Your task to perform on an android device: Open display settings Image 0: 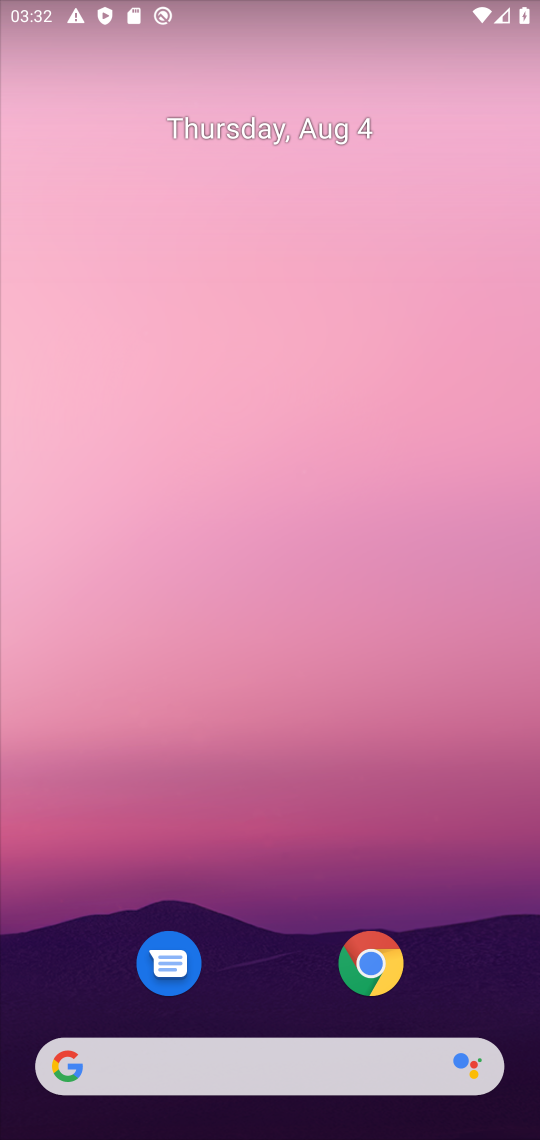
Step 0: drag from (277, 946) to (274, 45)
Your task to perform on an android device: Open display settings Image 1: 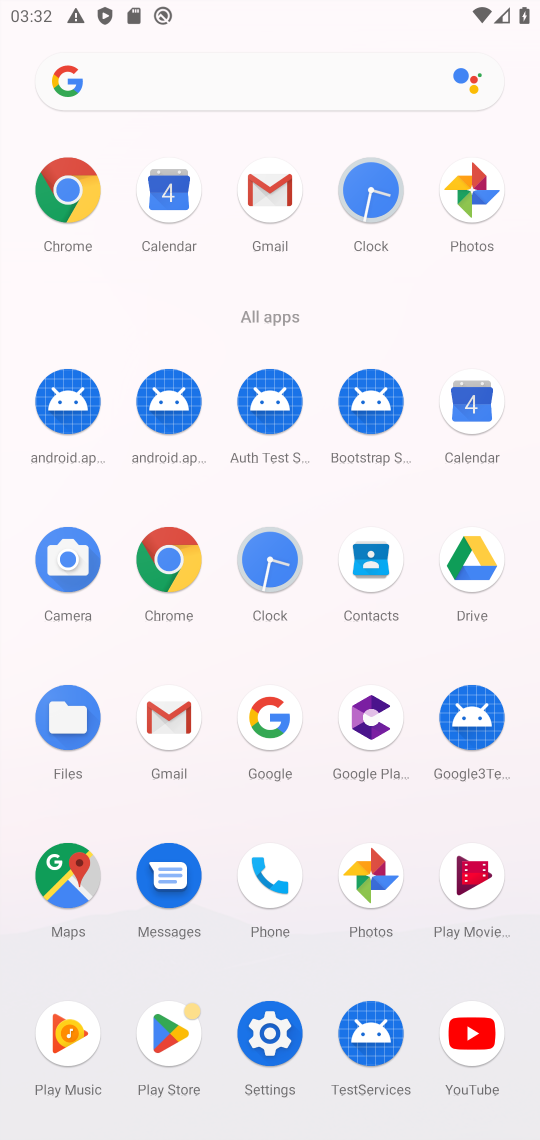
Step 1: click (274, 1037)
Your task to perform on an android device: Open display settings Image 2: 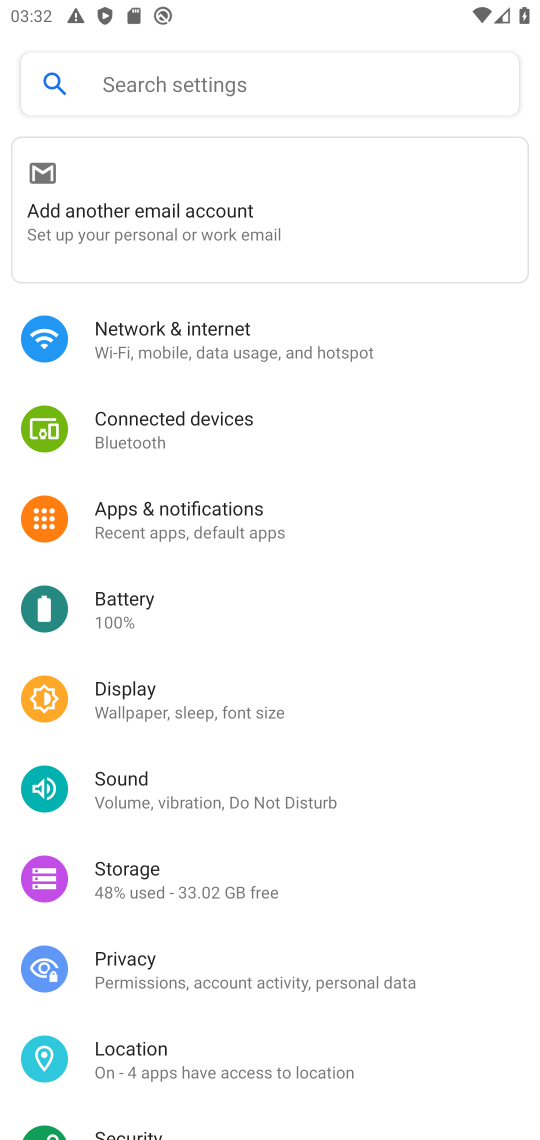
Step 2: click (122, 720)
Your task to perform on an android device: Open display settings Image 3: 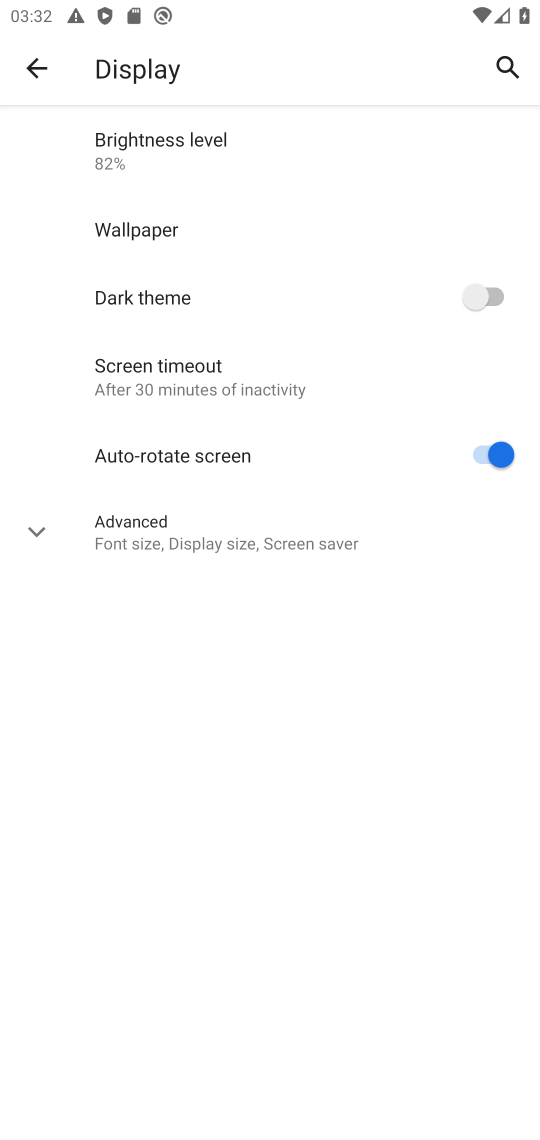
Step 3: task complete